Your task to perform on an android device: set an alarm Image 0: 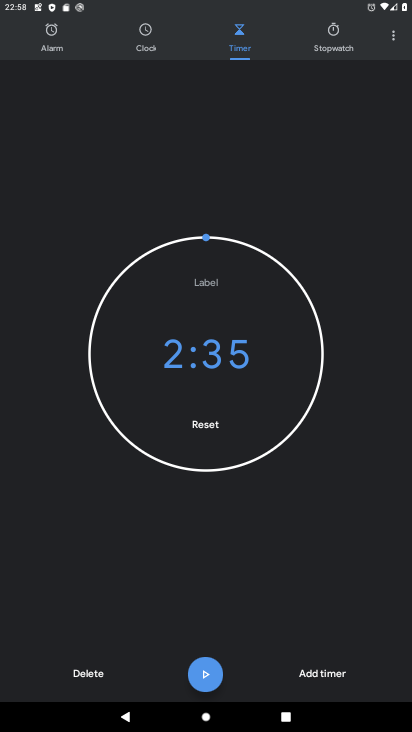
Step 0: click (408, 523)
Your task to perform on an android device: set an alarm Image 1: 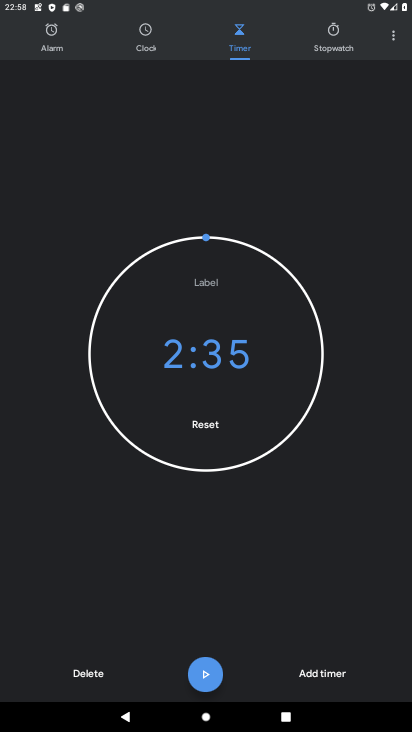
Step 1: click (46, 31)
Your task to perform on an android device: set an alarm Image 2: 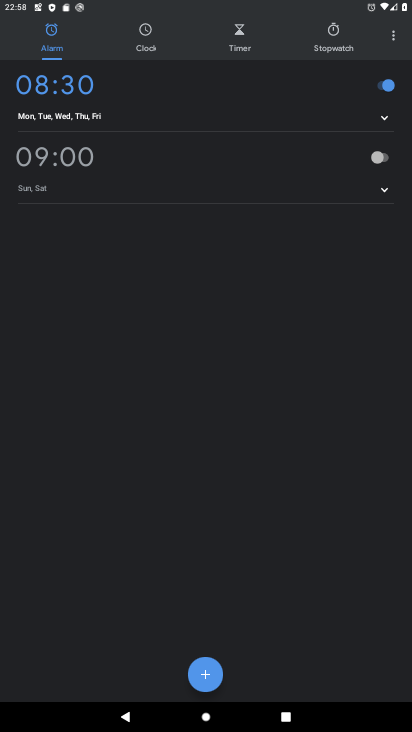
Step 2: task complete